Your task to perform on an android device: find photos in the google photos app Image 0: 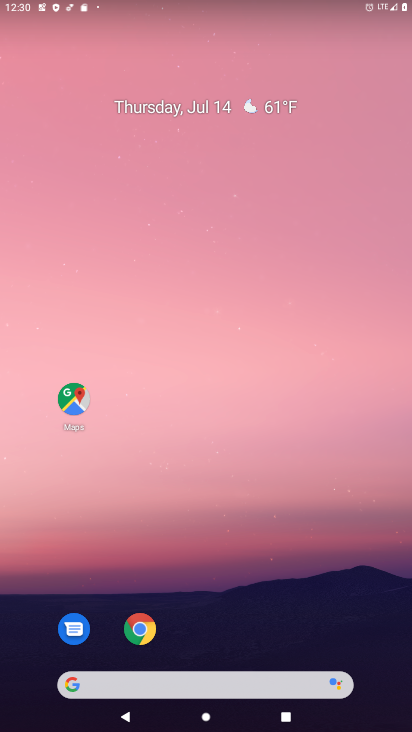
Step 0: drag from (283, 566) to (255, 187)
Your task to perform on an android device: find photos in the google photos app Image 1: 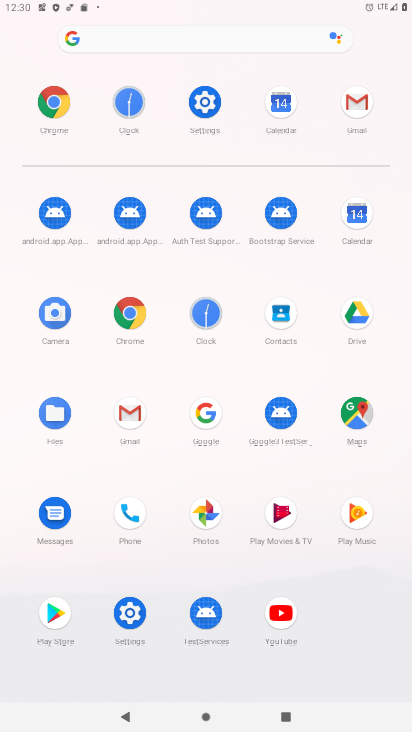
Step 1: click (209, 510)
Your task to perform on an android device: find photos in the google photos app Image 2: 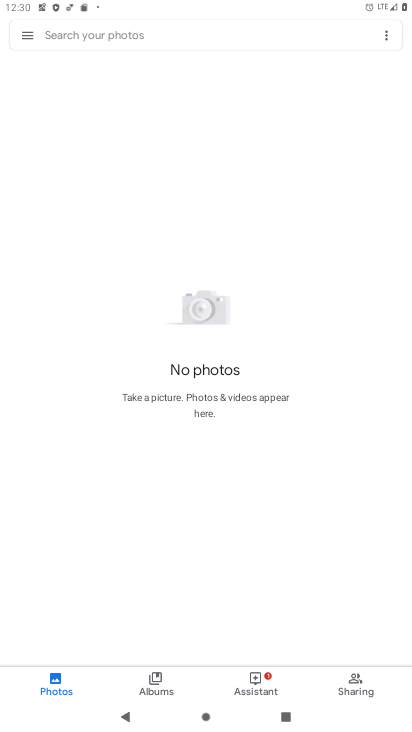
Step 2: task complete